Your task to perform on an android device: change alarm snooze length Image 0: 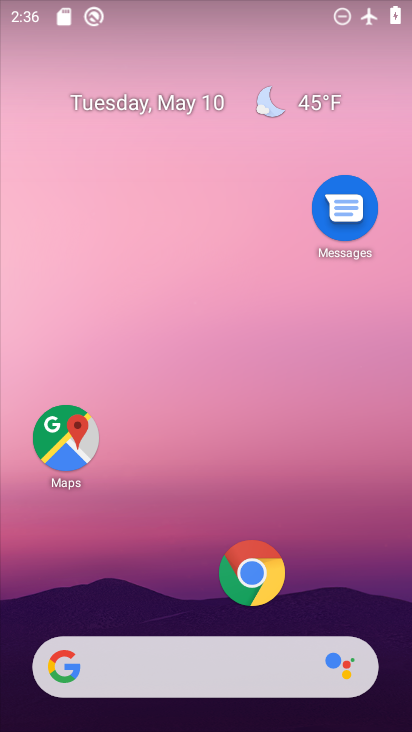
Step 0: drag from (197, 591) to (219, 270)
Your task to perform on an android device: change alarm snooze length Image 1: 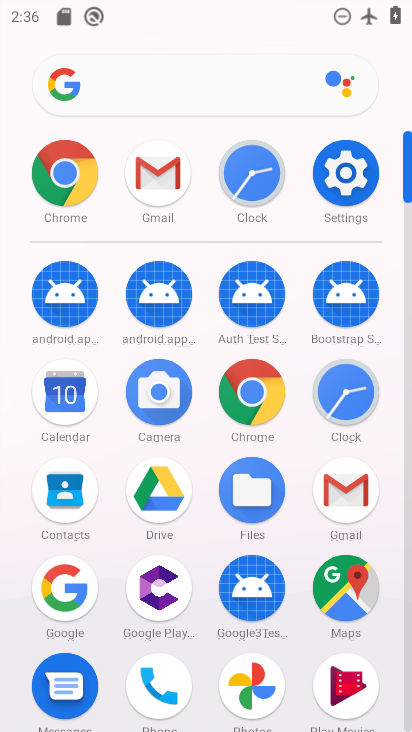
Step 1: drag from (202, 642) to (214, 459)
Your task to perform on an android device: change alarm snooze length Image 2: 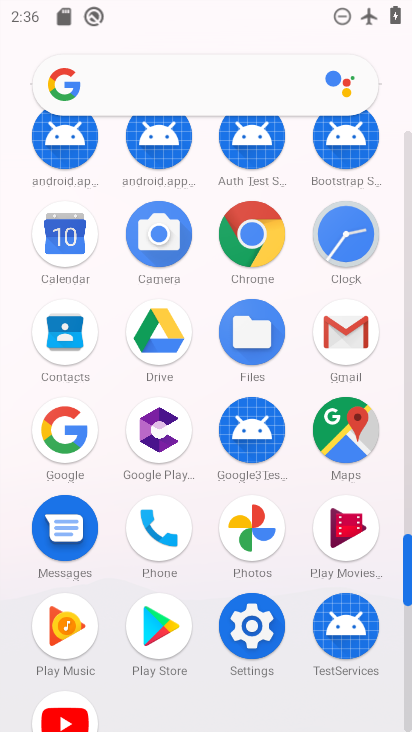
Step 2: drag from (181, 697) to (224, 428)
Your task to perform on an android device: change alarm snooze length Image 3: 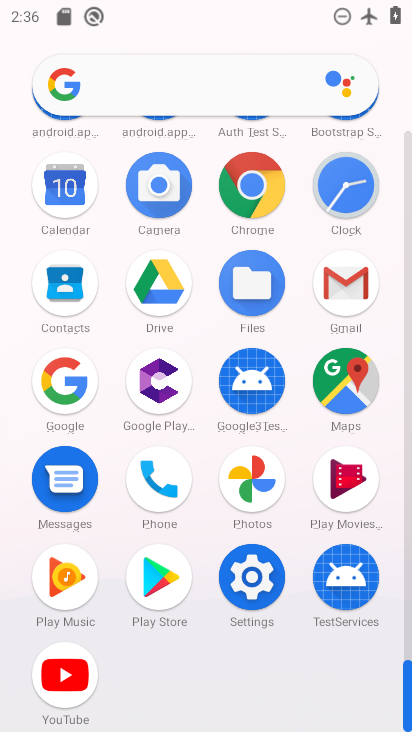
Step 3: click (356, 175)
Your task to perform on an android device: change alarm snooze length Image 4: 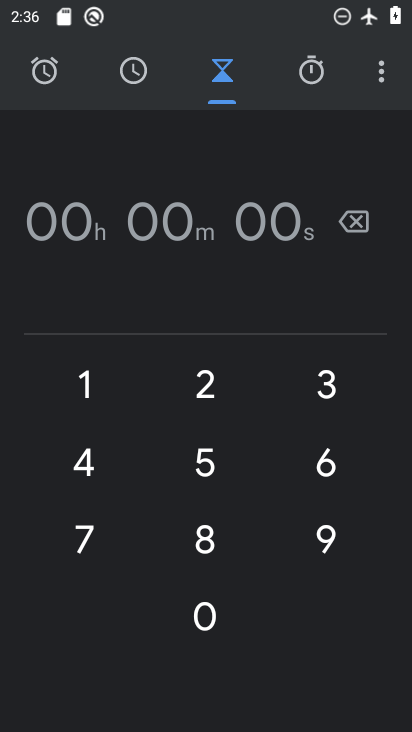
Step 4: click (389, 66)
Your task to perform on an android device: change alarm snooze length Image 5: 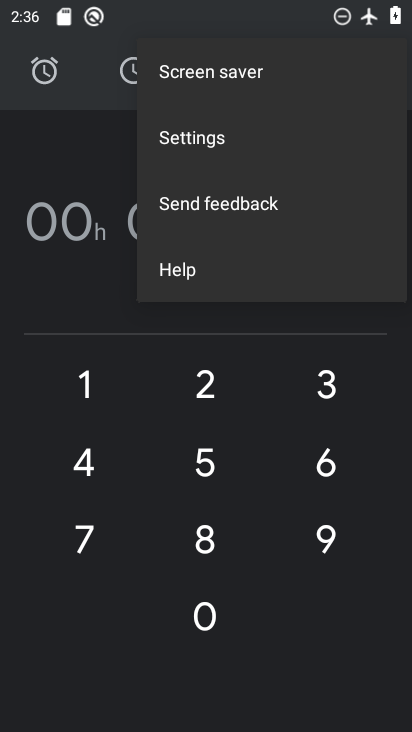
Step 5: click (212, 143)
Your task to perform on an android device: change alarm snooze length Image 6: 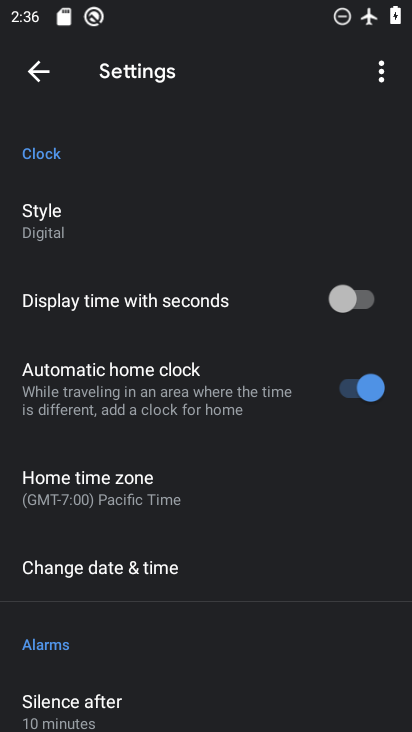
Step 6: drag from (181, 631) to (250, 259)
Your task to perform on an android device: change alarm snooze length Image 7: 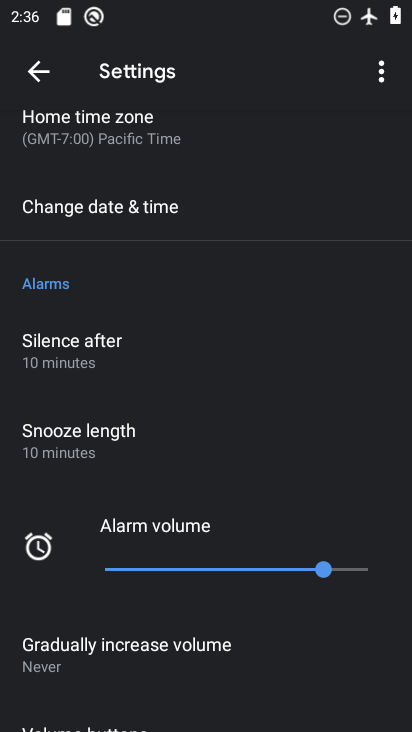
Step 7: click (141, 421)
Your task to perform on an android device: change alarm snooze length Image 8: 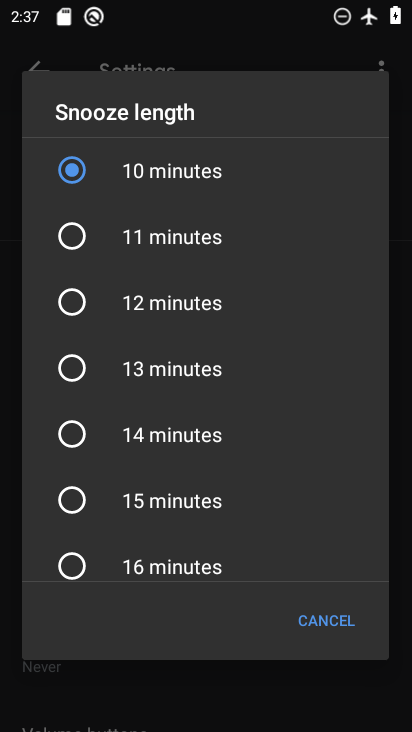
Step 8: drag from (183, 545) to (216, 389)
Your task to perform on an android device: change alarm snooze length Image 9: 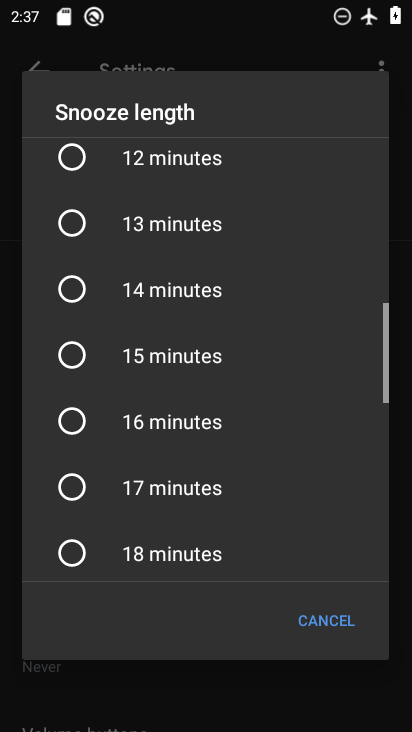
Step 9: click (307, 617)
Your task to perform on an android device: change alarm snooze length Image 10: 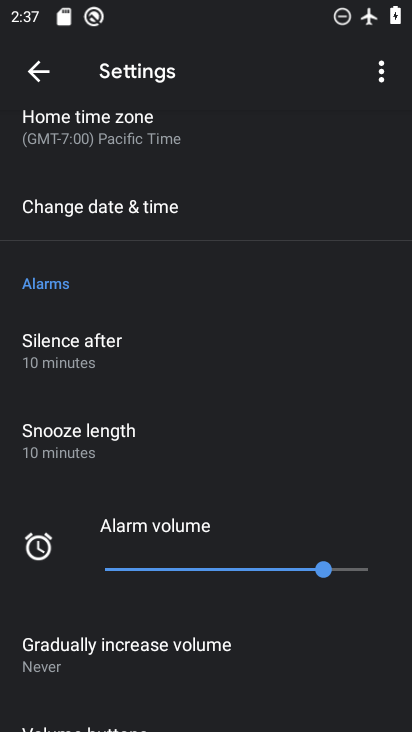
Step 10: drag from (235, 571) to (324, 126)
Your task to perform on an android device: change alarm snooze length Image 11: 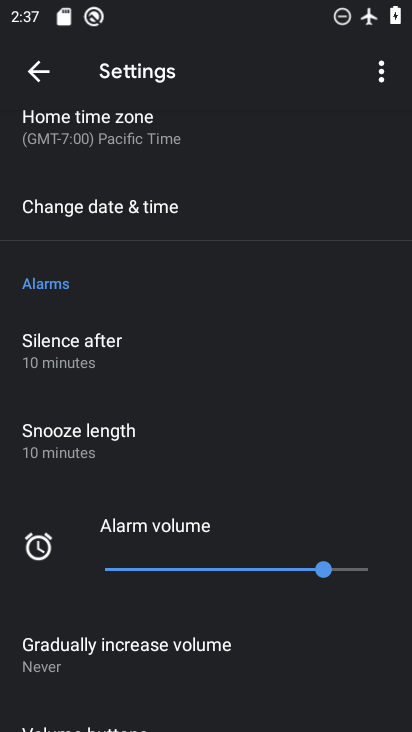
Step 11: click (141, 440)
Your task to perform on an android device: change alarm snooze length Image 12: 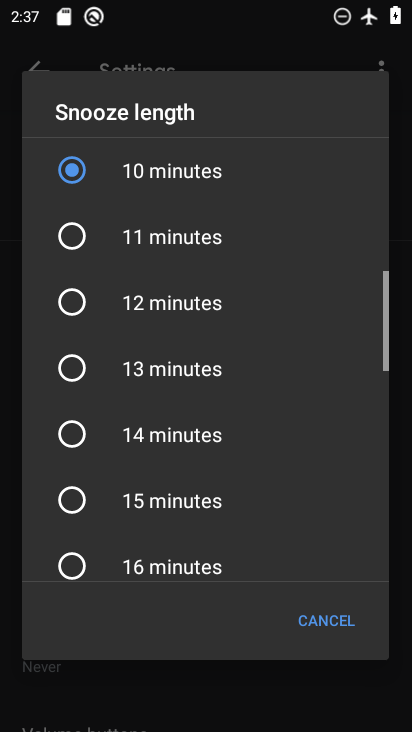
Step 12: click (172, 302)
Your task to perform on an android device: change alarm snooze length Image 13: 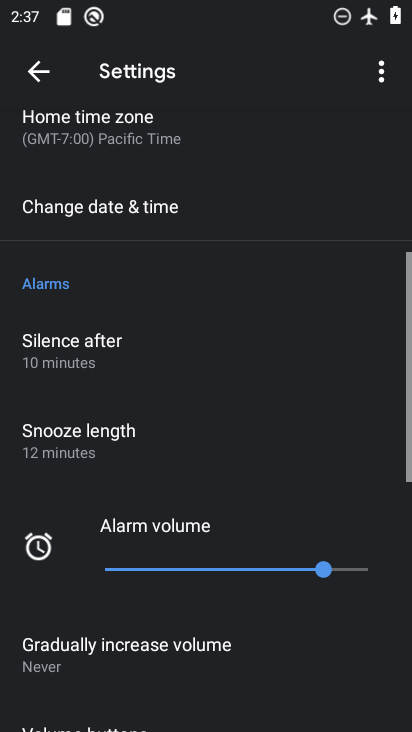
Step 13: task complete